Your task to perform on an android device: find snoozed emails in the gmail app Image 0: 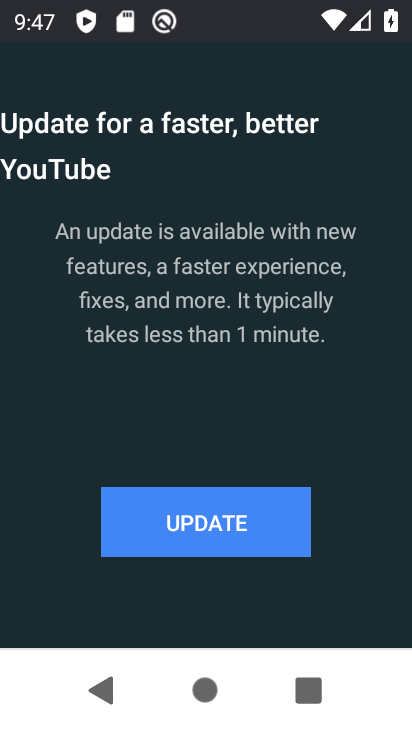
Step 0: press home button
Your task to perform on an android device: find snoozed emails in the gmail app Image 1: 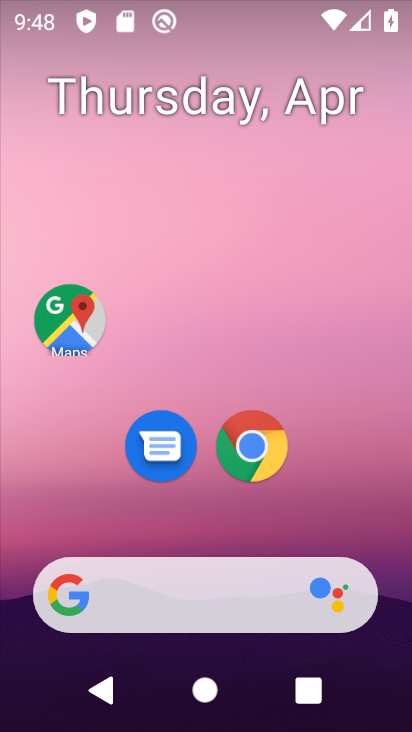
Step 1: drag from (219, 507) to (253, 50)
Your task to perform on an android device: find snoozed emails in the gmail app Image 2: 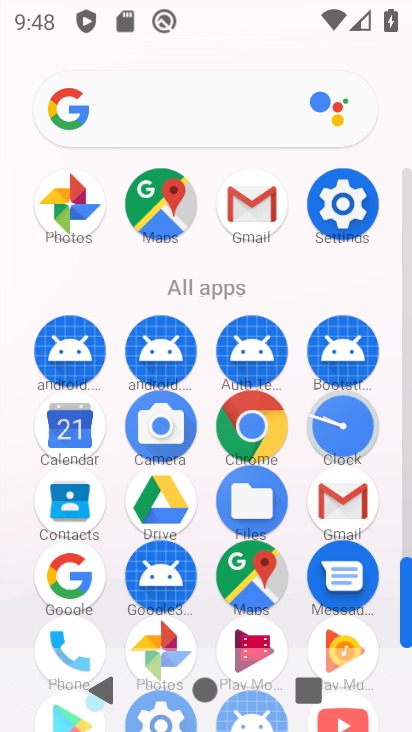
Step 2: click (251, 200)
Your task to perform on an android device: find snoozed emails in the gmail app Image 3: 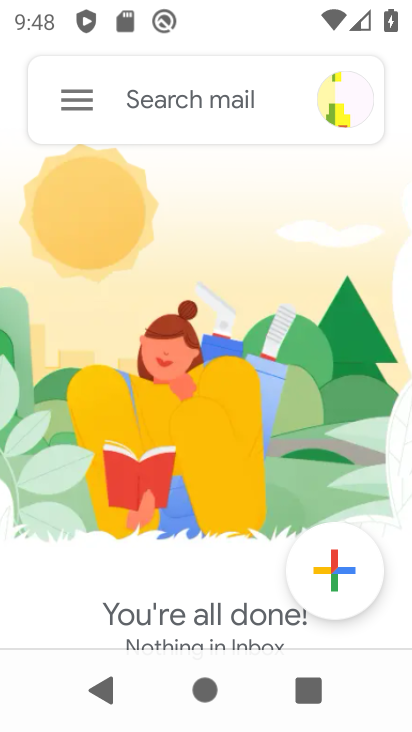
Step 3: click (73, 101)
Your task to perform on an android device: find snoozed emails in the gmail app Image 4: 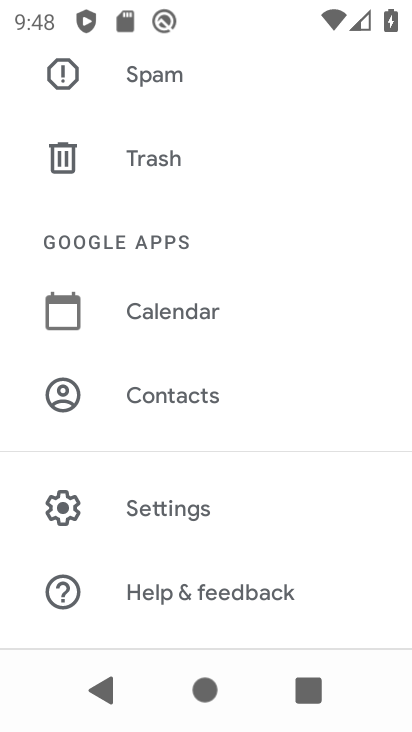
Step 4: drag from (250, 175) to (205, 714)
Your task to perform on an android device: find snoozed emails in the gmail app Image 5: 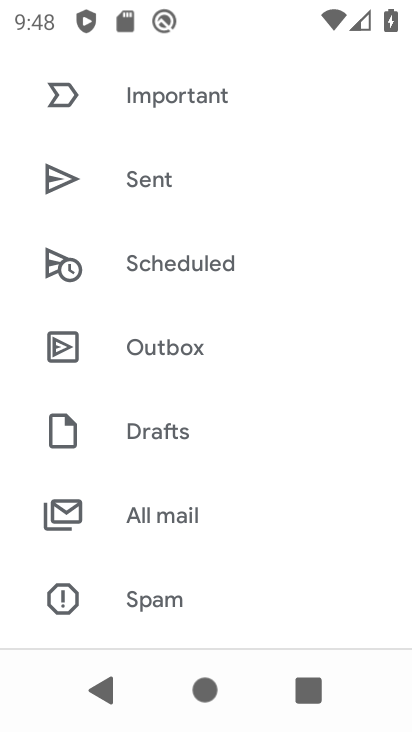
Step 5: drag from (237, 257) to (233, 578)
Your task to perform on an android device: find snoozed emails in the gmail app Image 6: 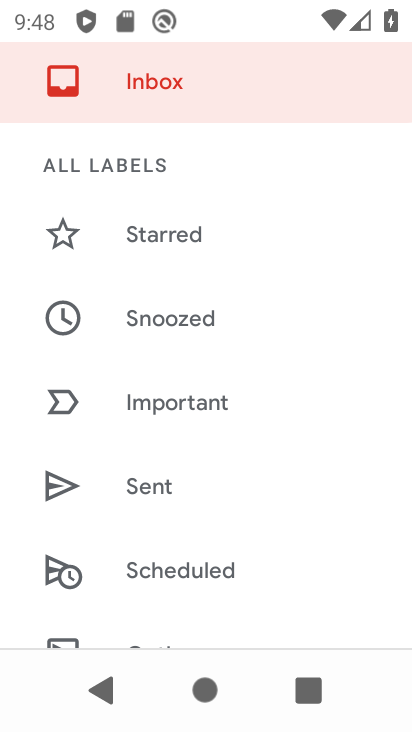
Step 6: click (172, 320)
Your task to perform on an android device: find snoozed emails in the gmail app Image 7: 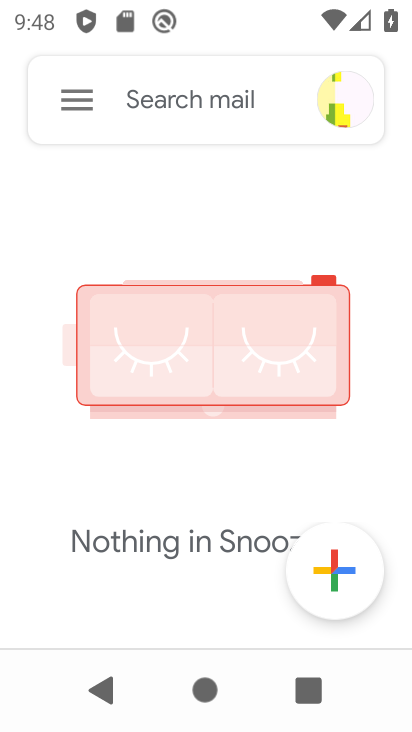
Step 7: task complete